Your task to perform on an android device: Go to Google Image 0: 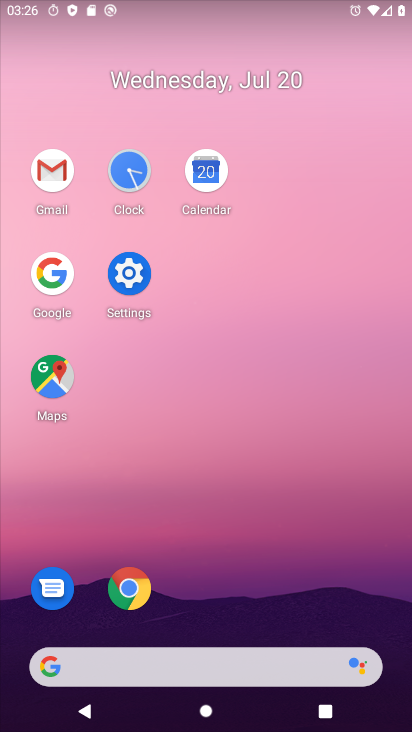
Step 0: click (43, 272)
Your task to perform on an android device: Go to Google Image 1: 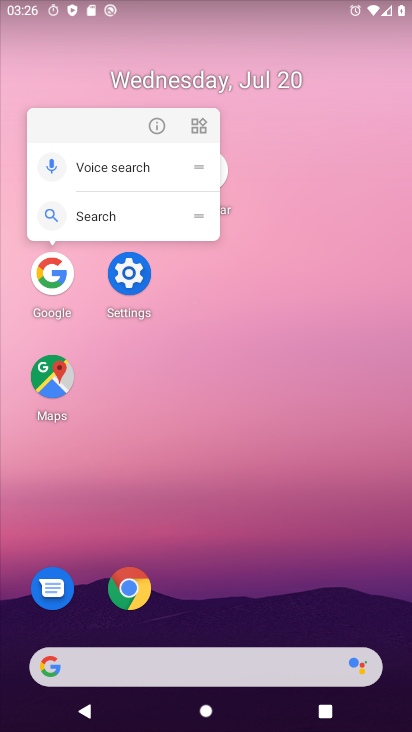
Step 1: click (37, 281)
Your task to perform on an android device: Go to Google Image 2: 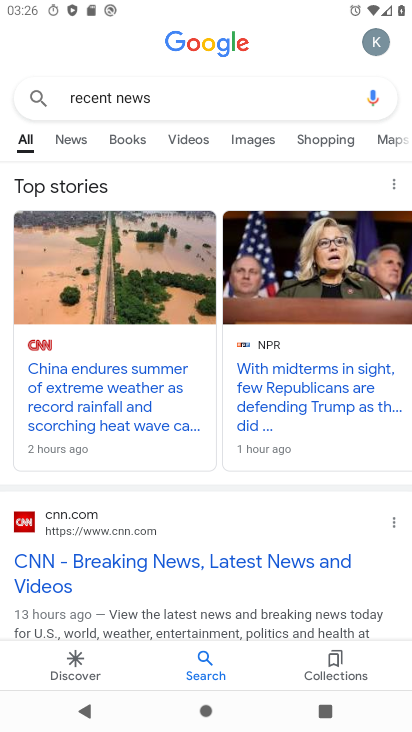
Step 2: task complete